Your task to perform on an android device: check out phone information Image 0: 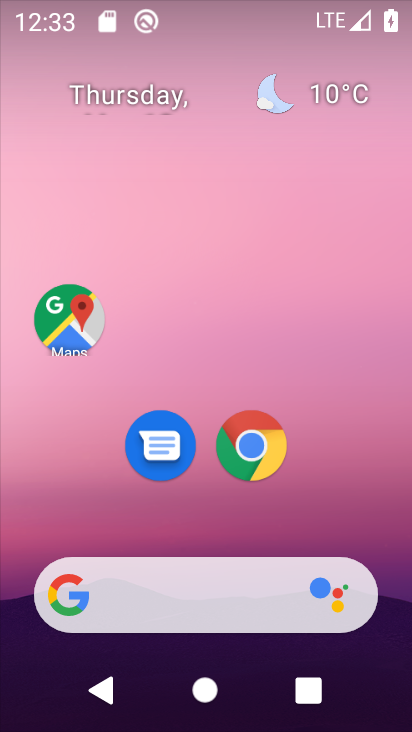
Step 0: drag from (229, 515) to (252, 5)
Your task to perform on an android device: check out phone information Image 1: 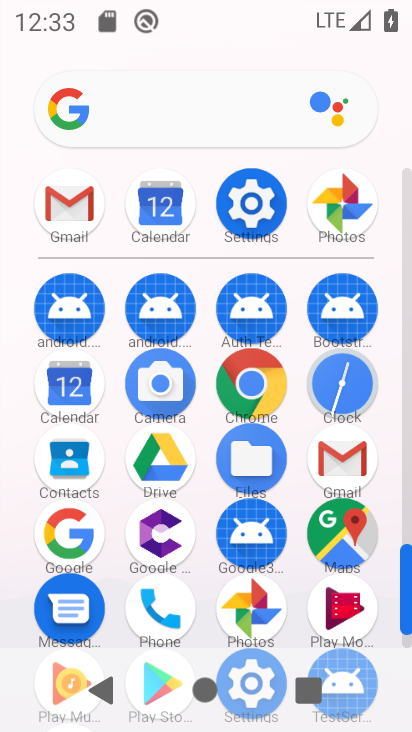
Step 1: click (256, 191)
Your task to perform on an android device: check out phone information Image 2: 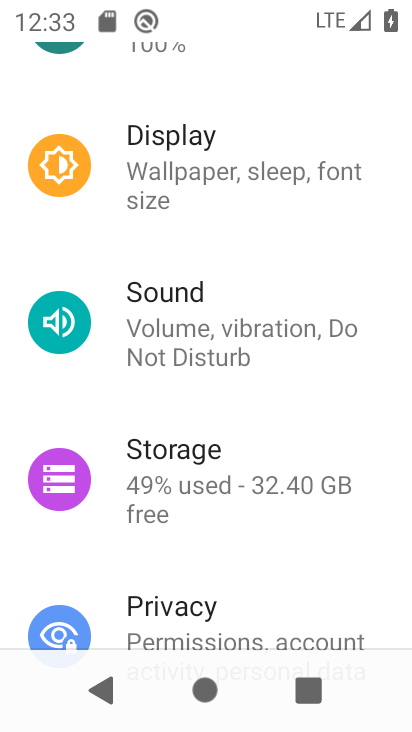
Step 2: drag from (209, 605) to (280, 20)
Your task to perform on an android device: check out phone information Image 3: 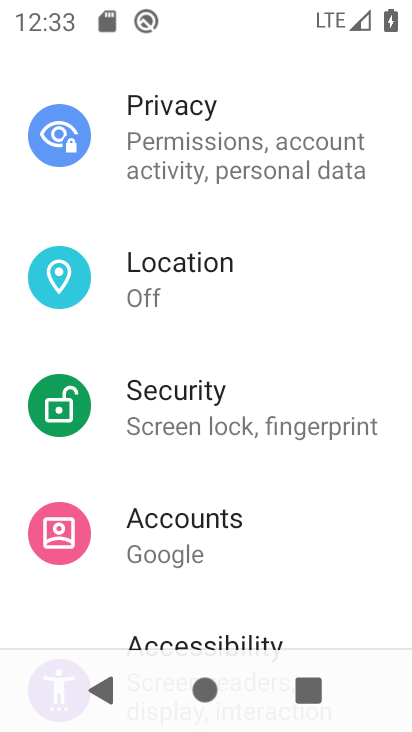
Step 3: drag from (194, 613) to (293, 6)
Your task to perform on an android device: check out phone information Image 4: 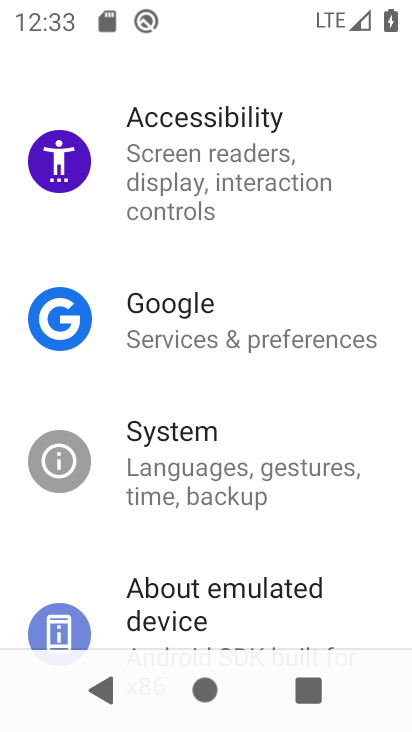
Step 4: drag from (167, 600) to (238, 15)
Your task to perform on an android device: check out phone information Image 5: 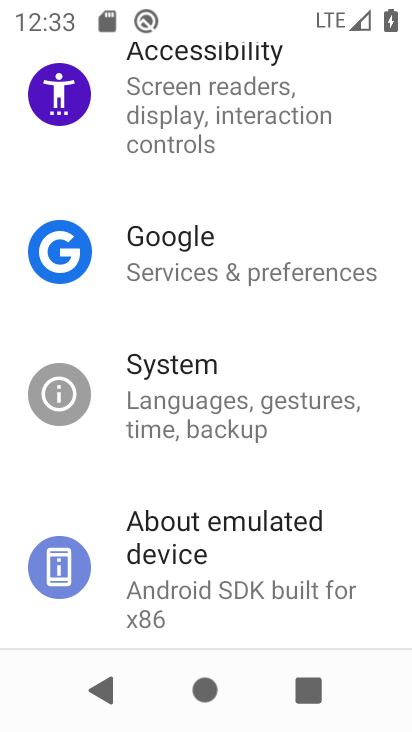
Step 5: click (214, 569)
Your task to perform on an android device: check out phone information Image 6: 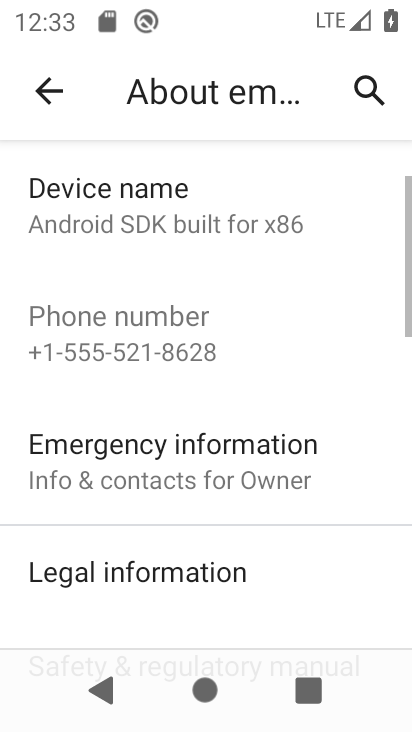
Step 6: task complete